Your task to perform on an android device: Open Yahoo.com Image 0: 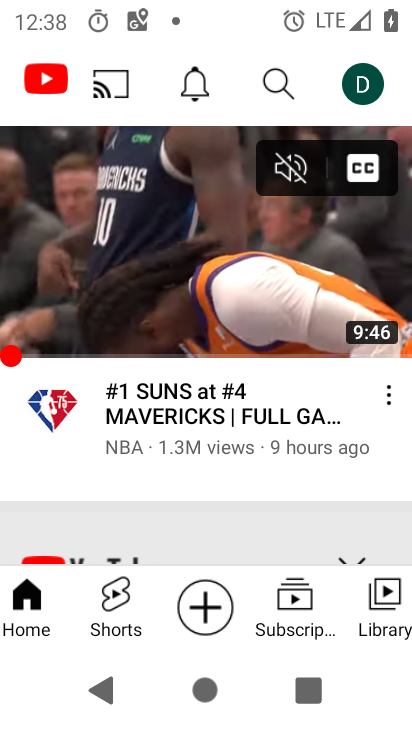
Step 0: press home button
Your task to perform on an android device: Open Yahoo.com Image 1: 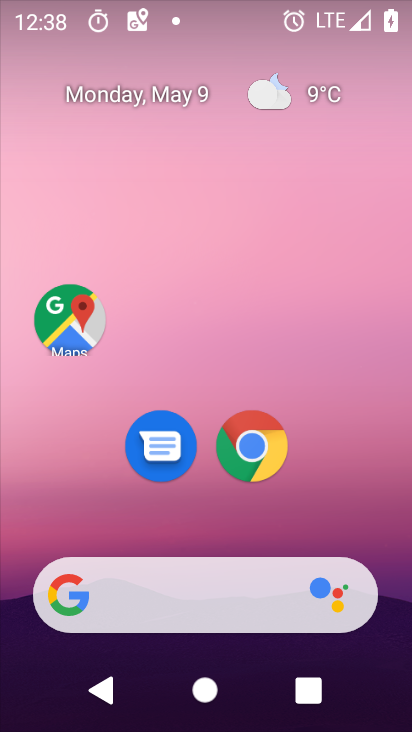
Step 1: click (257, 456)
Your task to perform on an android device: Open Yahoo.com Image 2: 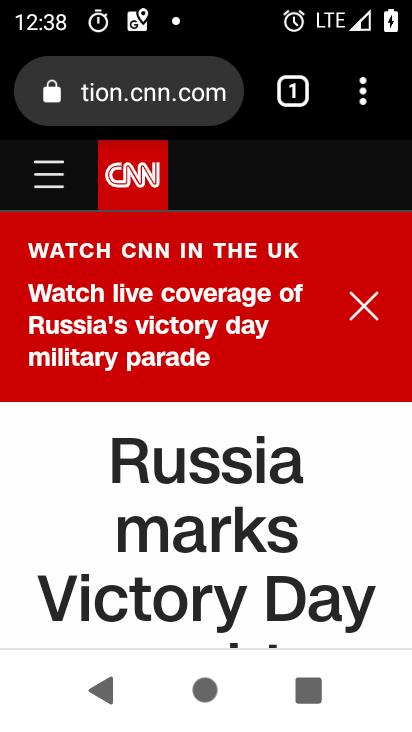
Step 2: click (88, 101)
Your task to perform on an android device: Open Yahoo.com Image 3: 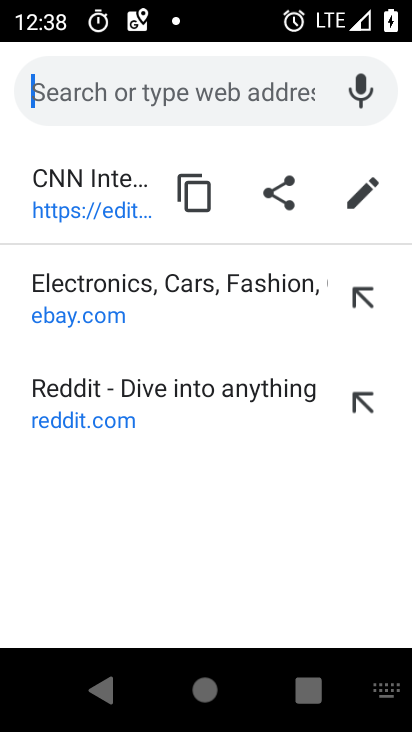
Step 3: type "yahoo.com"
Your task to perform on an android device: Open Yahoo.com Image 4: 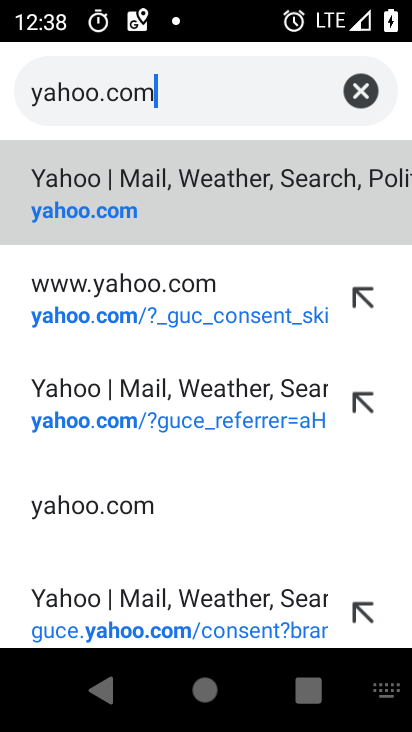
Step 4: click (73, 187)
Your task to perform on an android device: Open Yahoo.com Image 5: 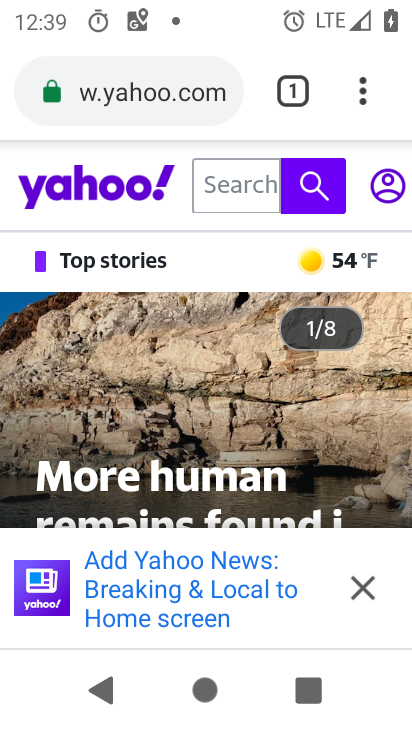
Step 5: task complete